Your task to perform on an android device: check data usage Image 0: 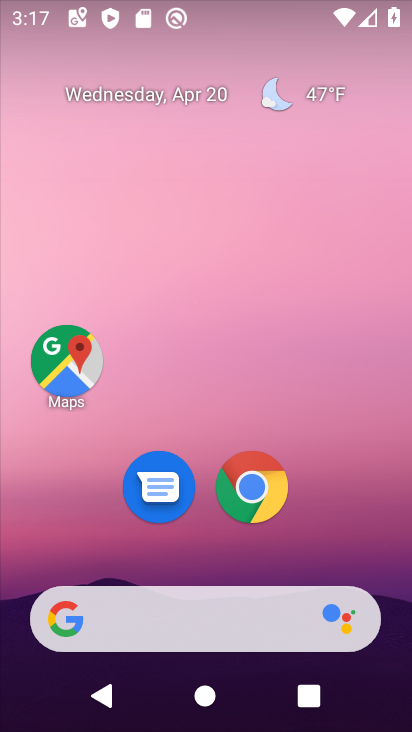
Step 0: drag from (377, 554) to (402, 353)
Your task to perform on an android device: check data usage Image 1: 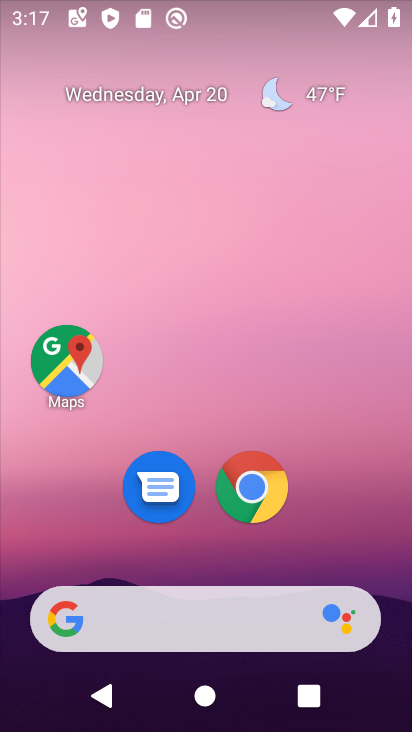
Step 1: drag from (373, 515) to (376, 124)
Your task to perform on an android device: check data usage Image 2: 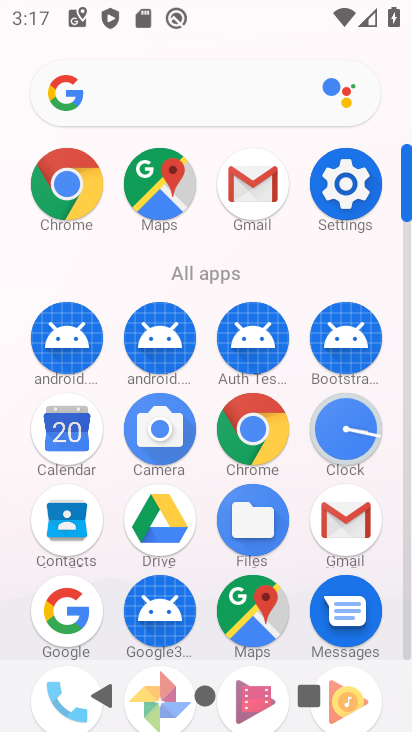
Step 2: click (338, 178)
Your task to perform on an android device: check data usage Image 3: 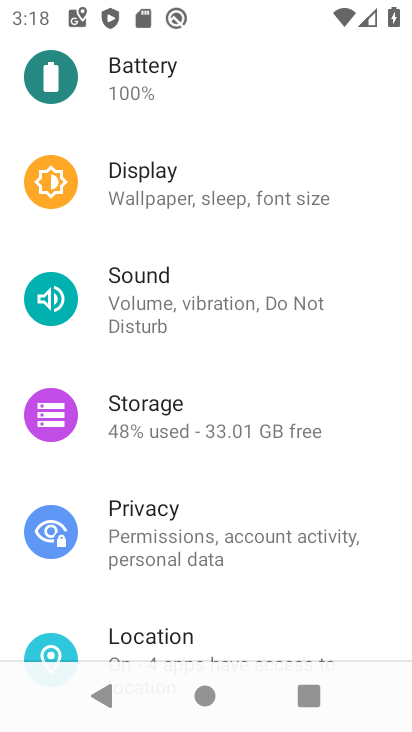
Step 3: drag from (359, 250) to (359, 548)
Your task to perform on an android device: check data usage Image 4: 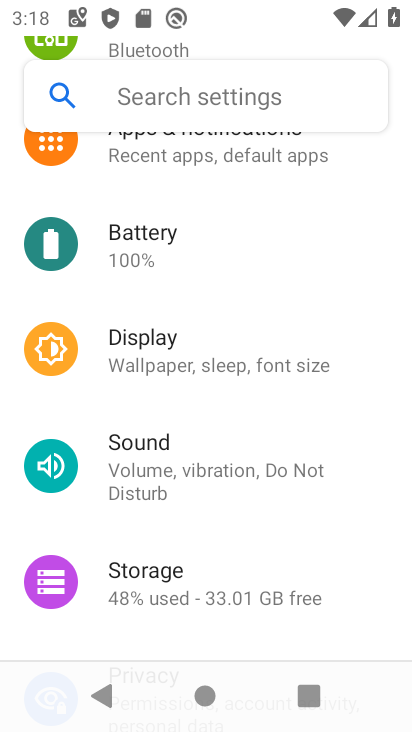
Step 4: drag from (335, 214) to (363, 521)
Your task to perform on an android device: check data usage Image 5: 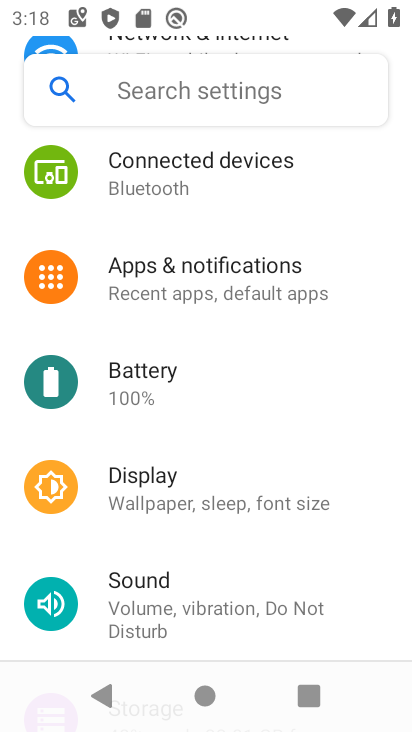
Step 5: drag from (300, 181) to (292, 571)
Your task to perform on an android device: check data usage Image 6: 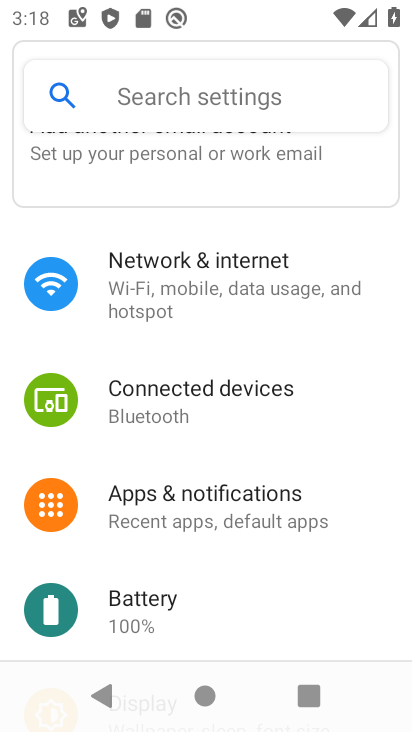
Step 6: click (232, 282)
Your task to perform on an android device: check data usage Image 7: 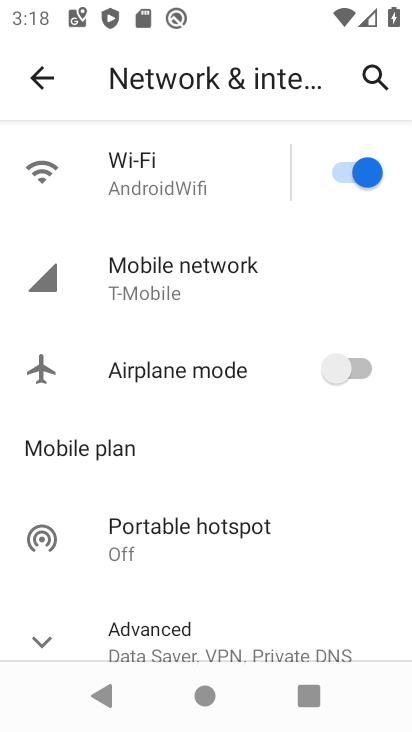
Step 7: click (231, 288)
Your task to perform on an android device: check data usage Image 8: 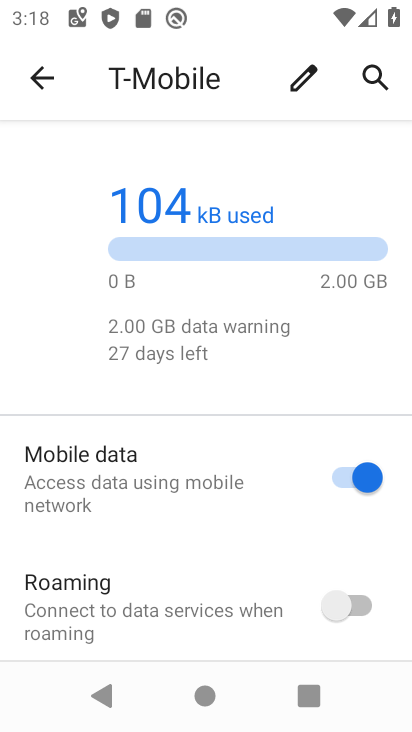
Step 8: drag from (212, 540) to (277, 238)
Your task to perform on an android device: check data usage Image 9: 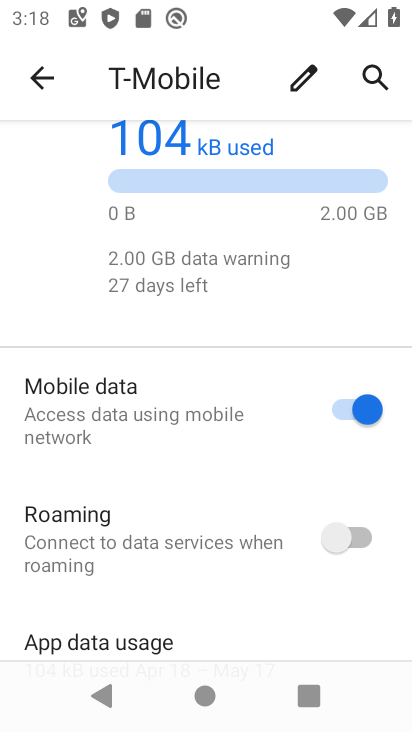
Step 9: drag from (222, 600) to (251, 385)
Your task to perform on an android device: check data usage Image 10: 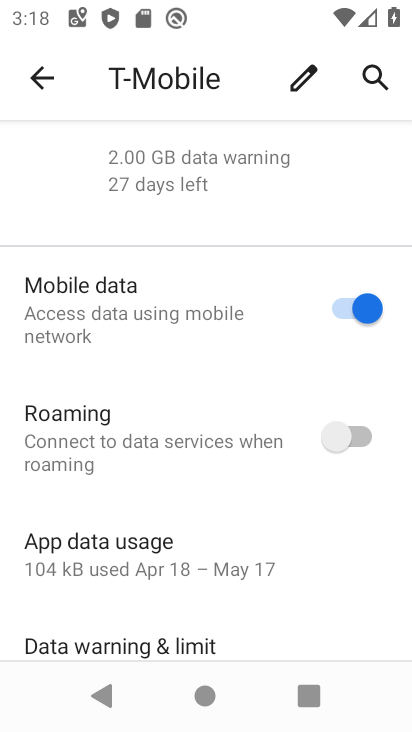
Step 10: click (190, 545)
Your task to perform on an android device: check data usage Image 11: 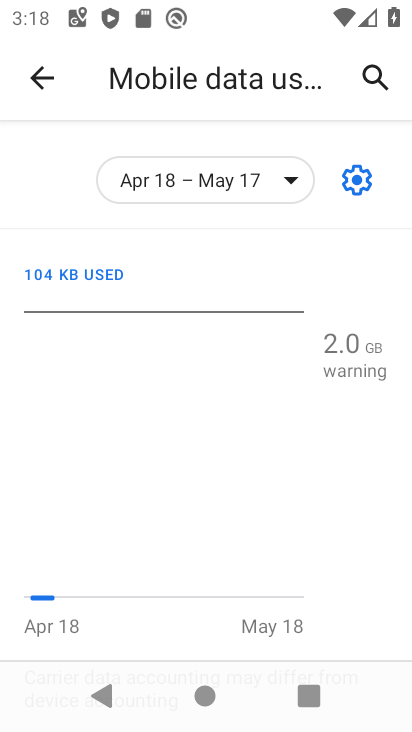
Step 11: task complete